Your task to perform on an android device: Go to battery settings Image 0: 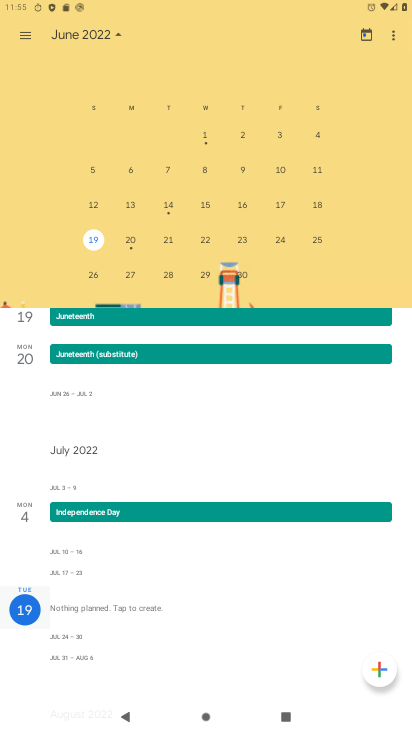
Step 0: press home button
Your task to perform on an android device: Go to battery settings Image 1: 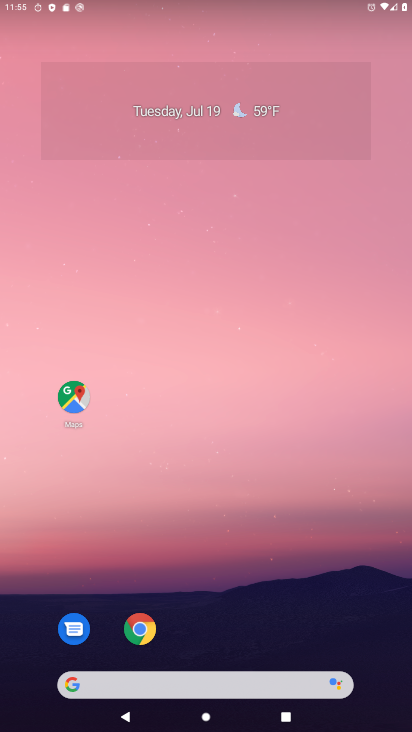
Step 1: drag from (307, 641) to (246, 1)
Your task to perform on an android device: Go to battery settings Image 2: 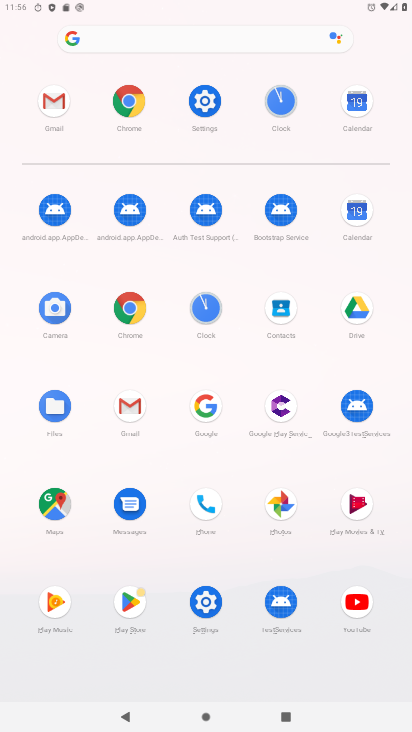
Step 2: click (206, 106)
Your task to perform on an android device: Go to battery settings Image 3: 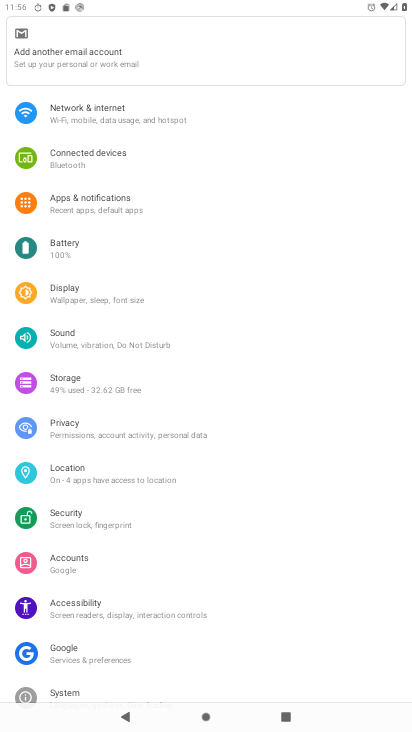
Step 3: click (81, 251)
Your task to perform on an android device: Go to battery settings Image 4: 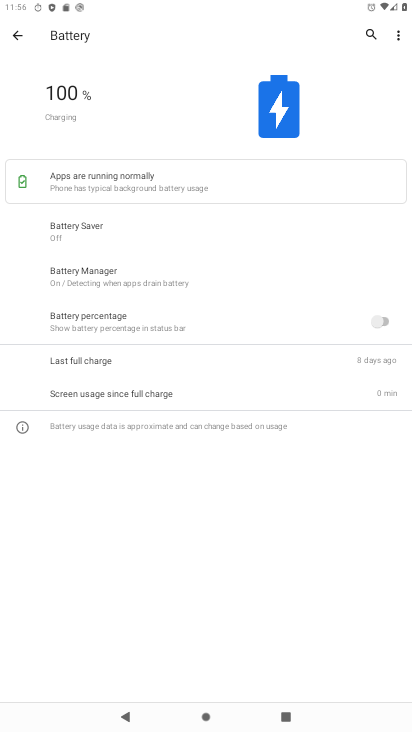
Step 4: task complete